Your task to perform on an android device: Open Wikipedia Image 0: 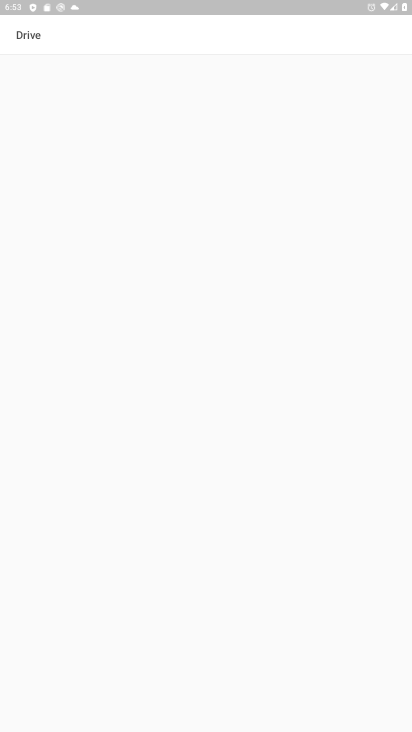
Step 0: press home button
Your task to perform on an android device: Open Wikipedia Image 1: 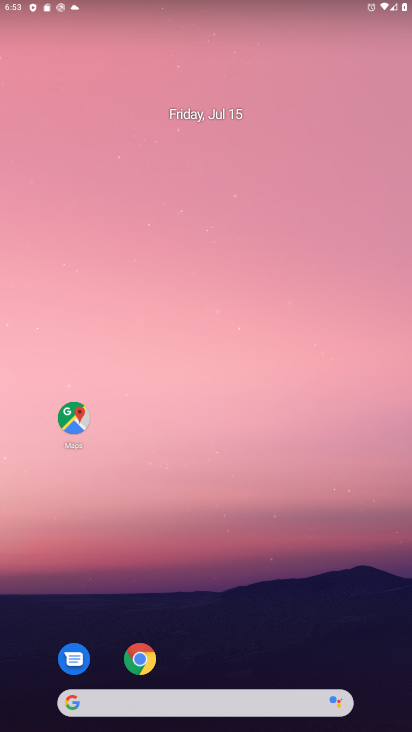
Step 1: click (142, 660)
Your task to perform on an android device: Open Wikipedia Image 2: 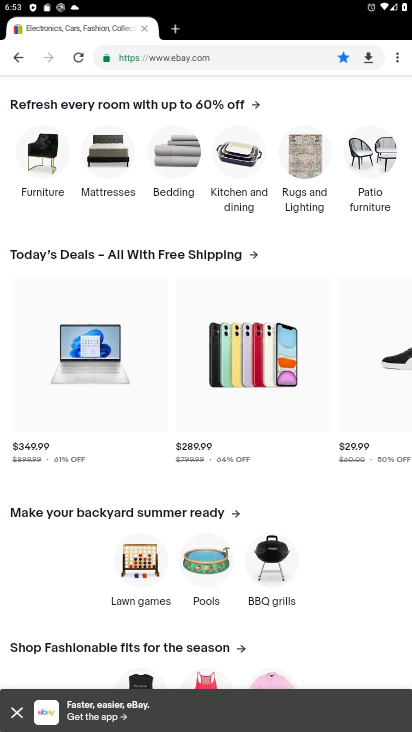
Step 2: click (237, 58)
Your task to perform on an android device: Open Wikipedia Image 3: 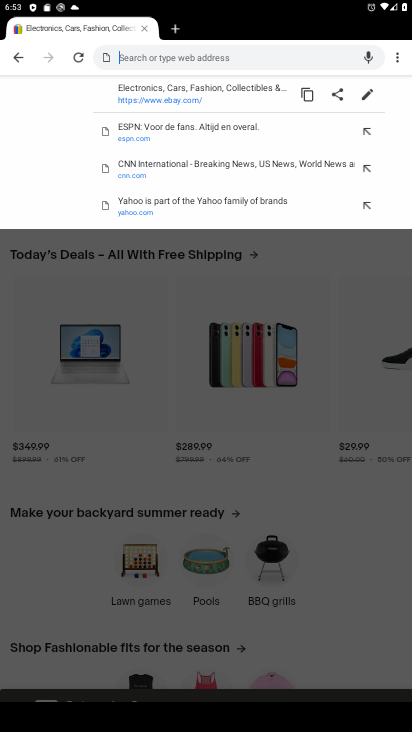
Step 3: type "wikipedia"
Your task to perform on an android device: Open Wikipedia Image 4: 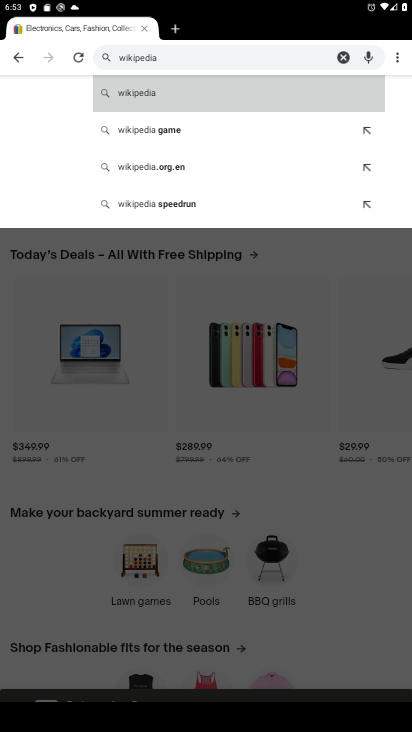
Step 4: click (135, 87)
Your task to perform on an android device: Open Wikipedia Image 5: 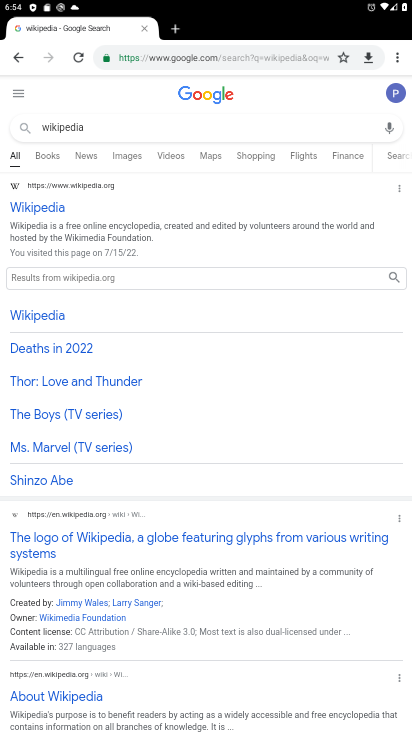
Step 5: click (47, 211)
Your task to perform on an android device: Open Wikipedia Image 6: 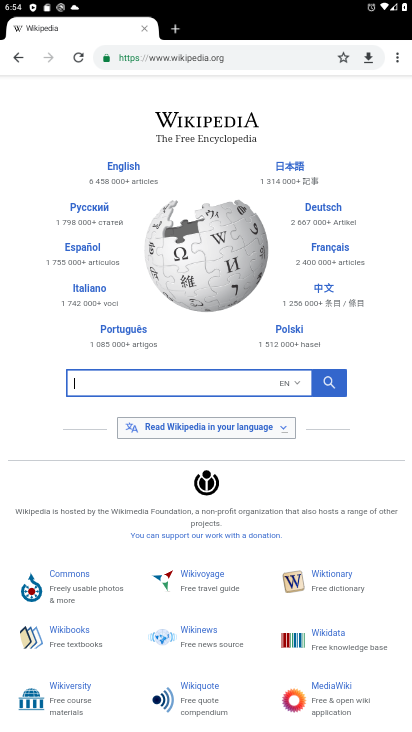
Step 6: task complete